Your task to perform on an android device: change the clock display to show seconds Image 0: 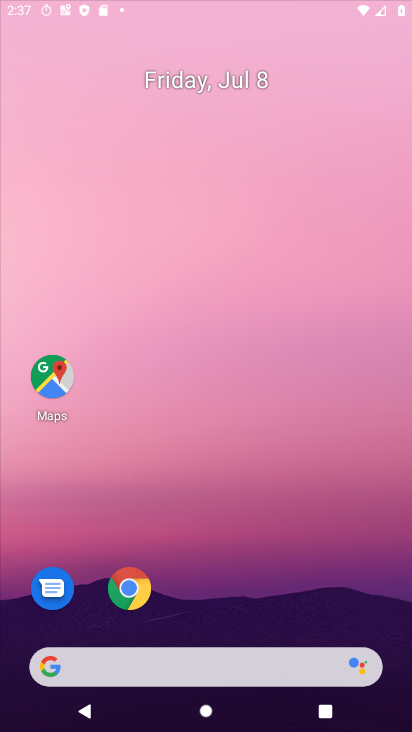
Step 0: press home button
Your task to perform on an android device: change the clock display to show seconds Image 1: 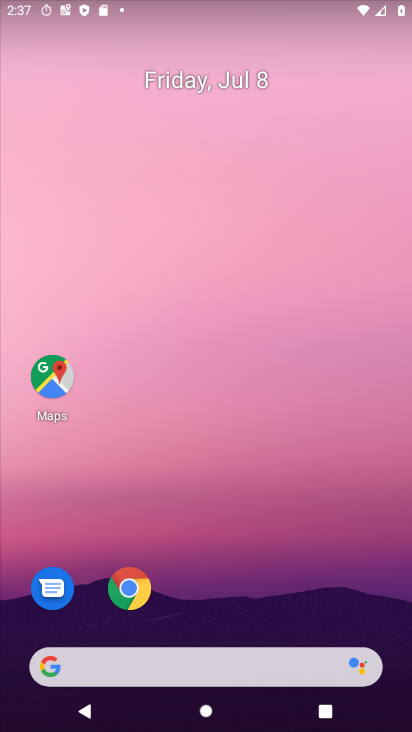
Step 1: drag from (191, 620) to (245, 209)
Your task to perform on an android device: change the clock display to show seconds Image 2: 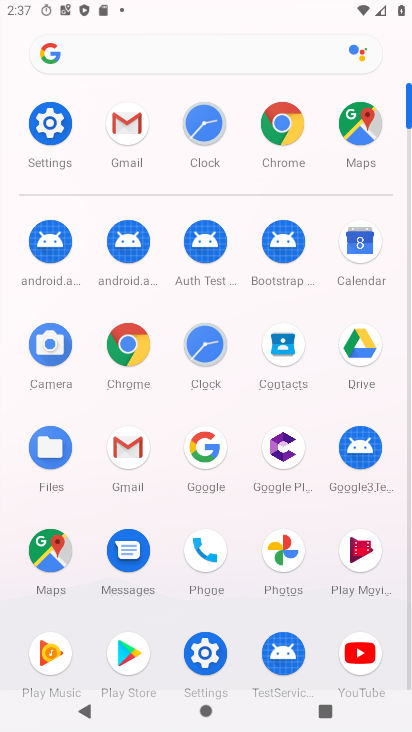
Step 2: click (204, 136)
Your task to perform on an android device: change the clock display to show seconds Image 3: 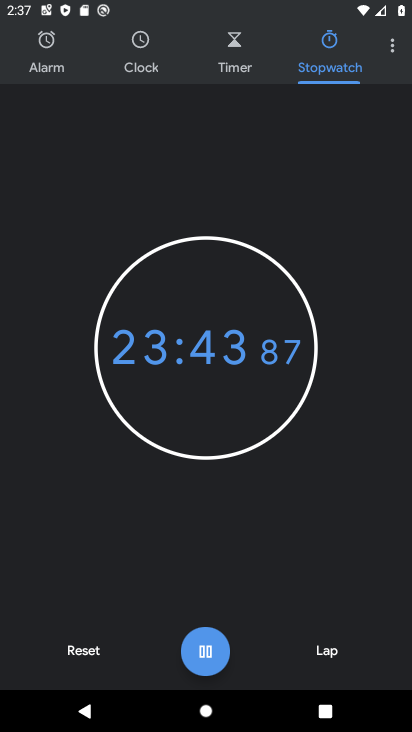
Step 3: click (398, 54)
Your task to perform on an android device: change the clock display to show seconds Image 4: 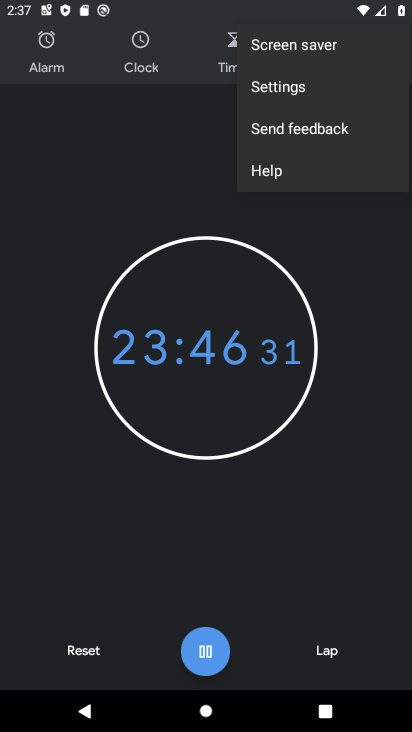
Step 4: click (291, 87)
Your task to perform on an android device: change the clock display to show seconds Image 5: 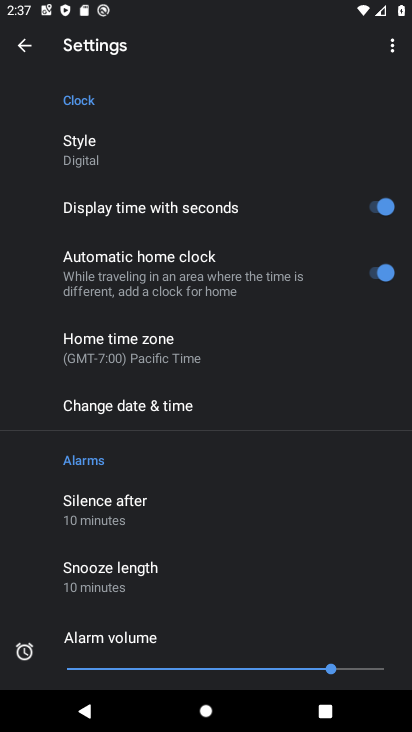
Step 5: task complete